Your task to perform on an android device: Go to CNN.com Image 0: 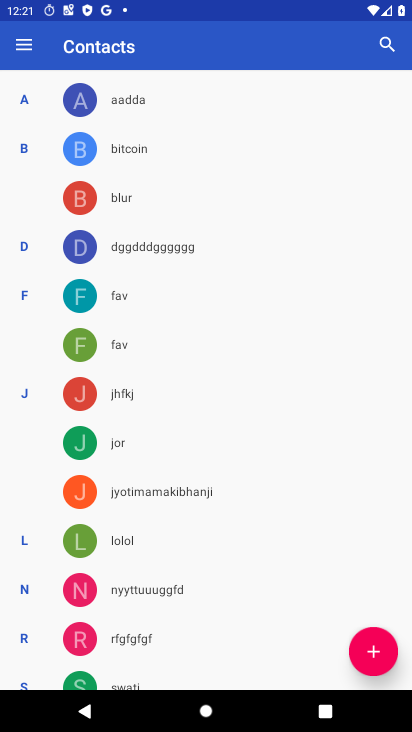
Step 0: press home button
Your task to perform on an android device: Go to CNN.com Image 1: 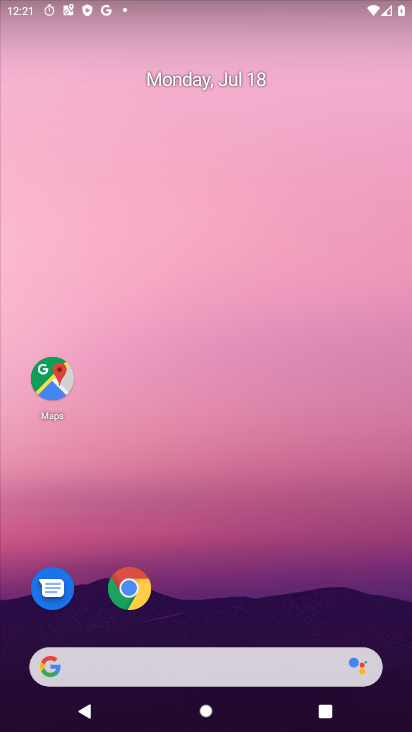
Step 1: click (135, 602)
Your task to perform on an android device: Go to CNN.com Image 2: 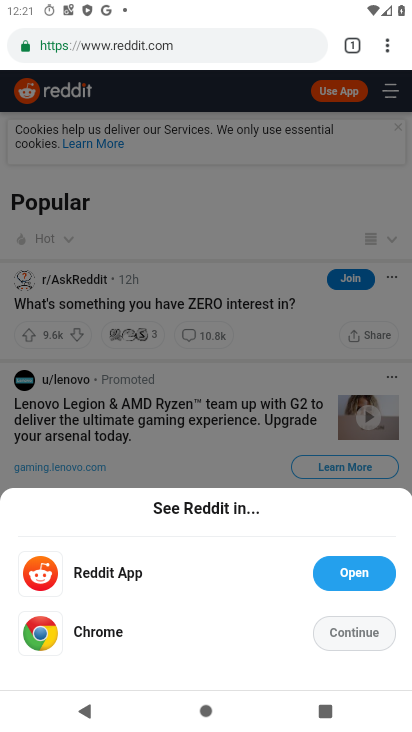
Step 2: click (179, 53)
Your task to perform on an android device: Go to CNN.com Image 3: 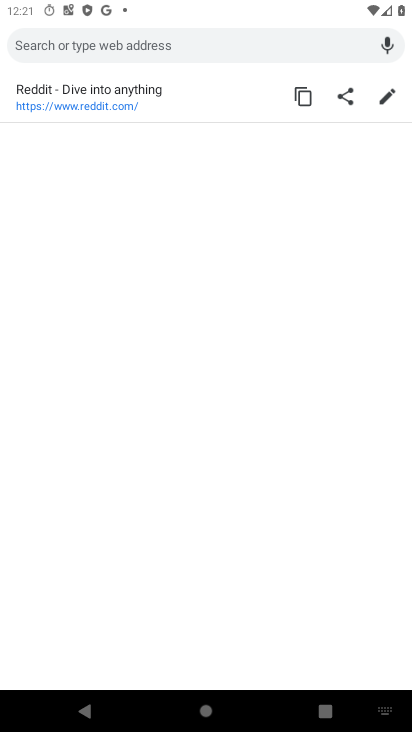
Step 3: type "CNN.com"
Your task to perform on an android device: Go to CNN.com Image 4: 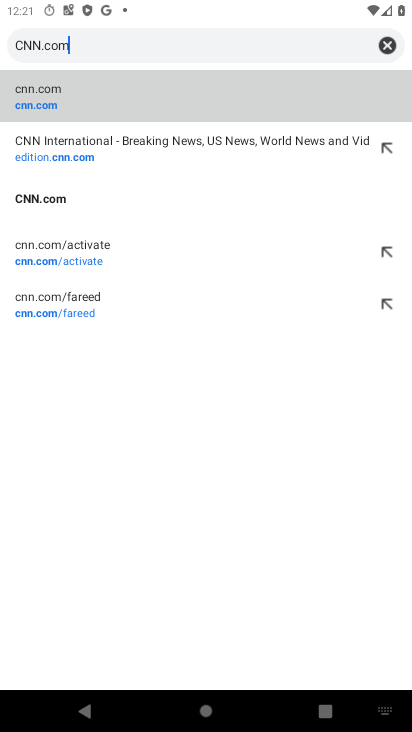
Step 4: click (203, 102)
Your task to perform on an android device: Go to CNN.com Image 5: 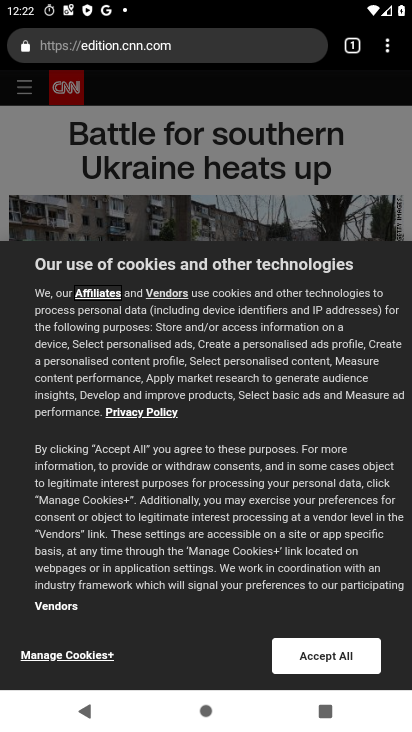
Step 5: task complete